Your task to perform on an android device: toggle airplane mode Image 0: 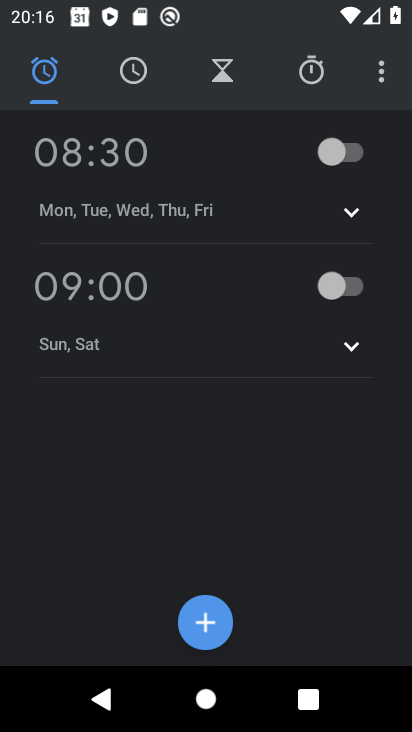
Step 0: press back button
Your task to perform on an android device: toggle airplane mode Image 1: 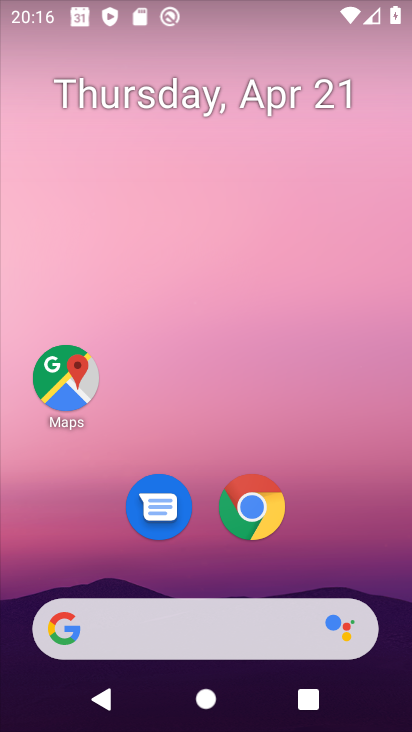
Step 1: drag from (341, 44) to (320, 500)
Your task to perform on an android device: toggle airplane mode Image 2: 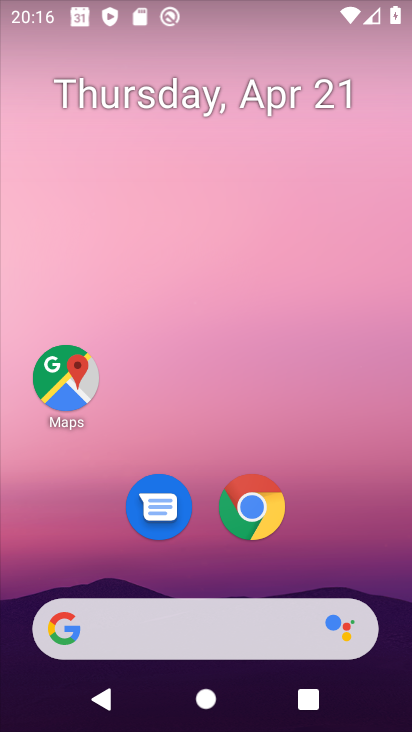
Step 2: drag from (180, 13) to (205, 405)
Your task to perform on an android device: toggle airplane mode Image 3: 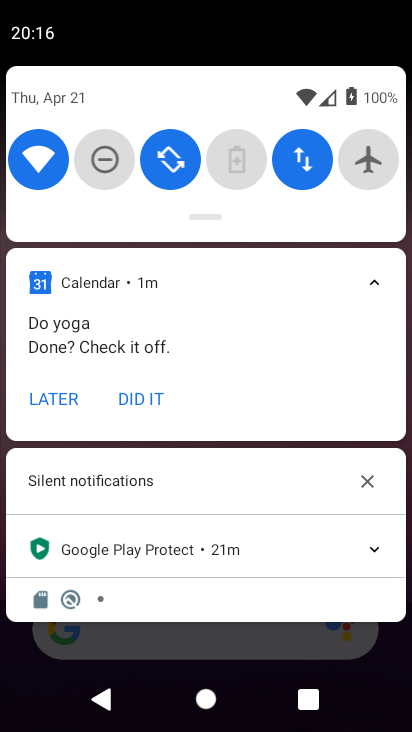
Step 3: click (359, 158)
Your task to perform on an android device: toggle airplane mode Image 4: 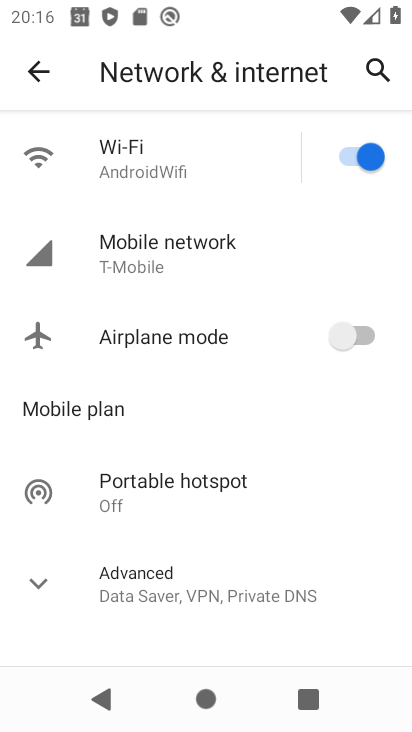
Step 4: click (345, 331)
Your task to perform on an android device: toggle airplane mode Image 5: 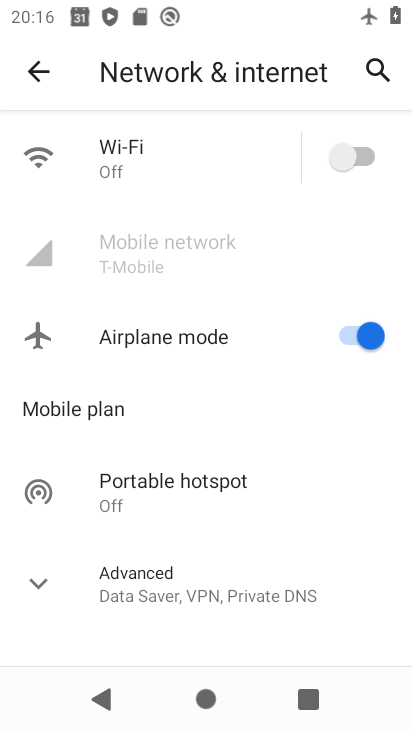
Step 5: task complete